Your task to perform on an android device: change the clock display to analog Image 0: 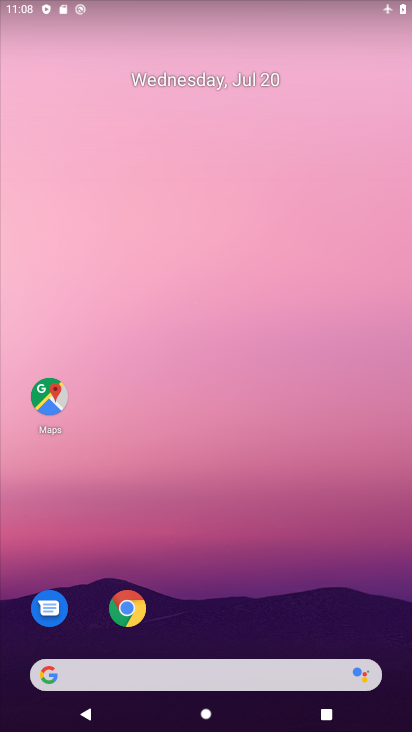
Step 0: drag from (355, 655) to (237, 13)
Your task to perform on an android device: change the clock display to analog Image 1: 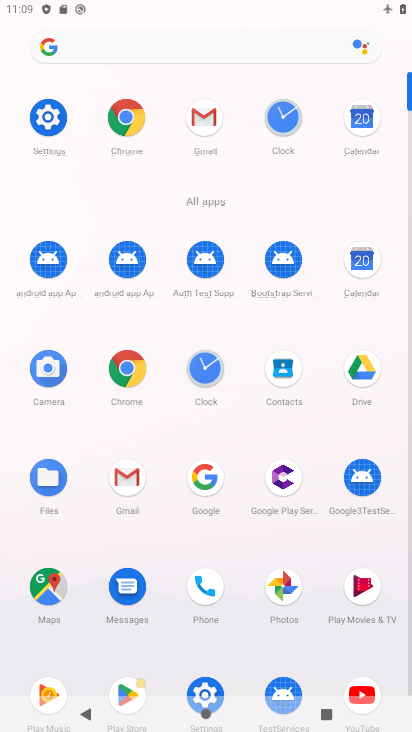
Step 1: click (202, 368)
Your task to perform on an android device: change the clock display to analog Image 2: 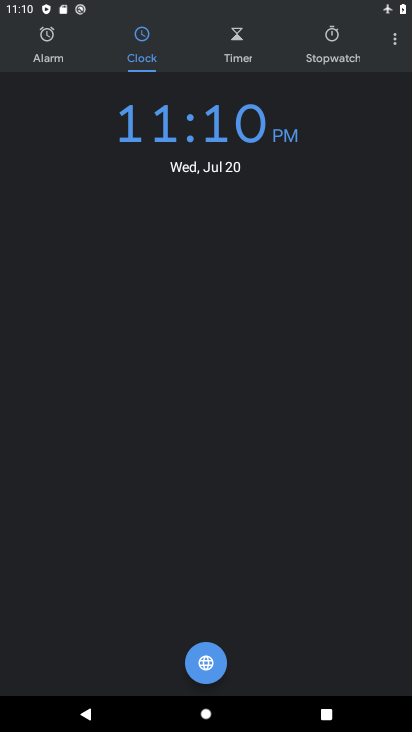
Step 2: click (401, 39)
Your task to perform on an android device: change the clock display to analog Image 3: 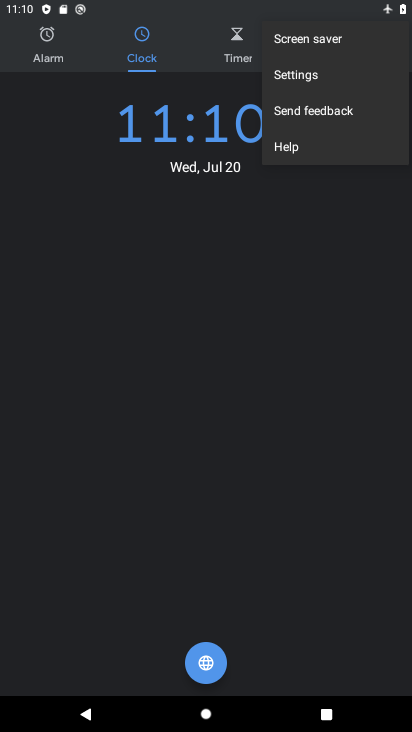
Step 3: click (305, 76)
Your task to perform on an android device: change the clock display to analog Image 4: 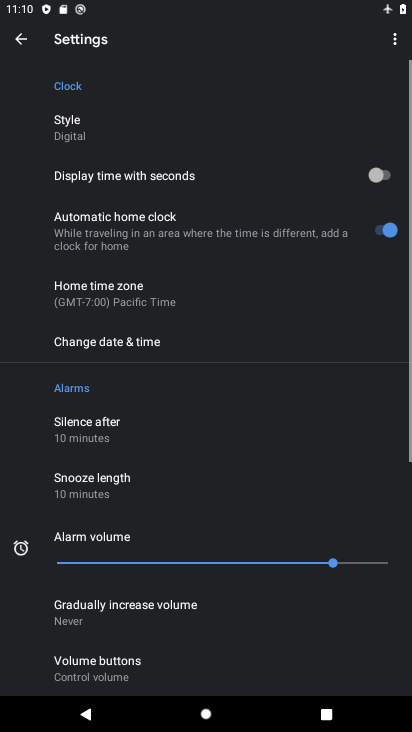
Step 4: click (61, 132)
Your task to perform on an android device: change the clock display to analog Image 5: 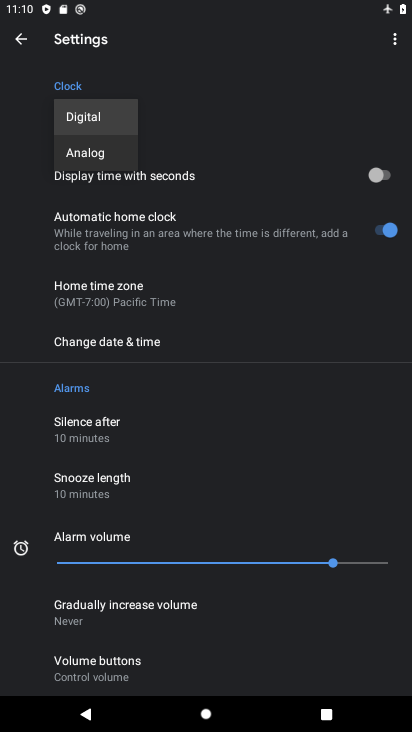
Step 5: click (88, 154)
Your task to perform on an android device: change the clock display to analog Image 6: 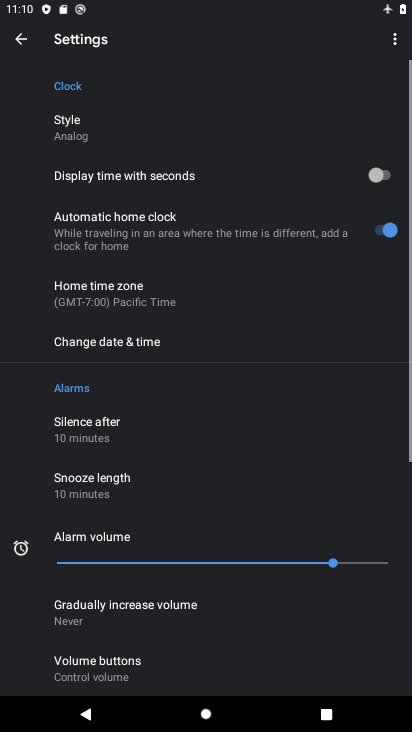
Step 6: task complete